Your task to perform on an android device: change the clock style Image 0: 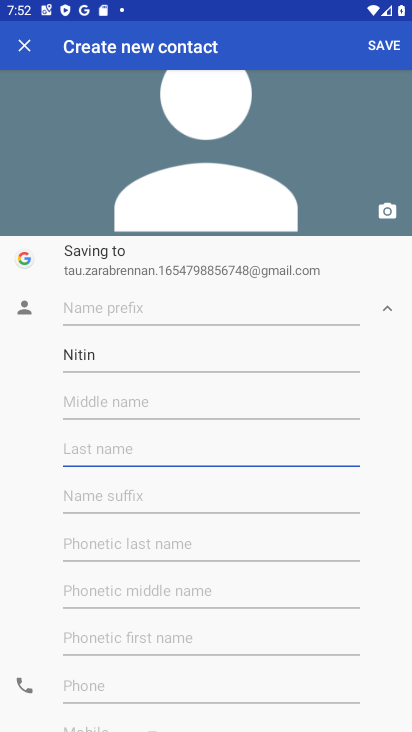
Step 0: press home button
Your task to perform on an android device: change the clock style Image 1: 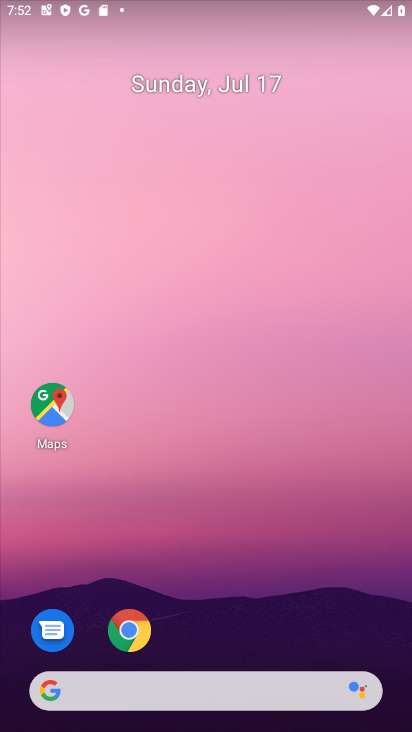
Step 1: drag from (189, 612) to (178, 10)
Your task to perform on an android device: change the clock style Image 2: 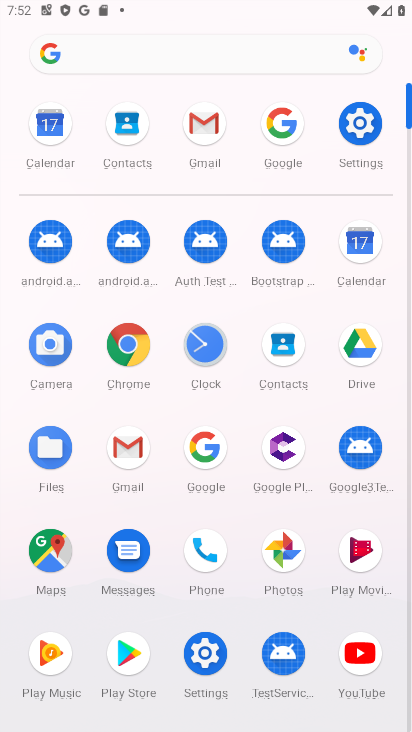
Step 2: click (197, 338)
Your task to perform on an android device: change the clock style Image 3: 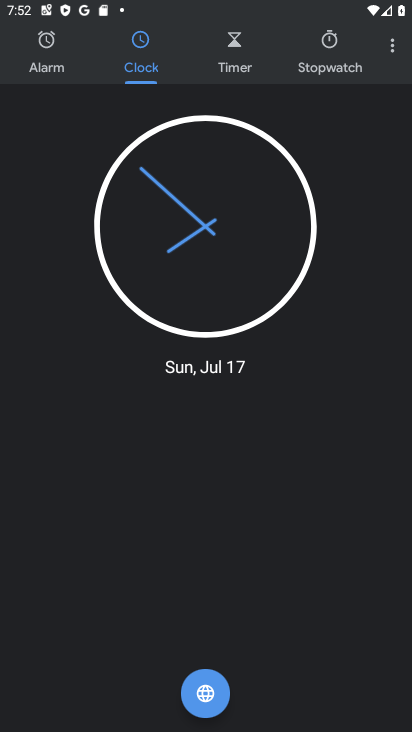
Step 3: click (394, 43)
Your task to perform on an android device: change the clock style Image 4: 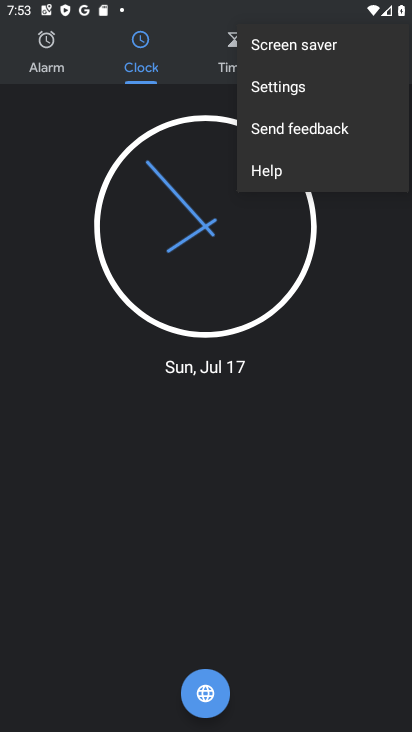
Step 4: click (300, 83)
Your task to perform on an android device: change the clock style Image 5: 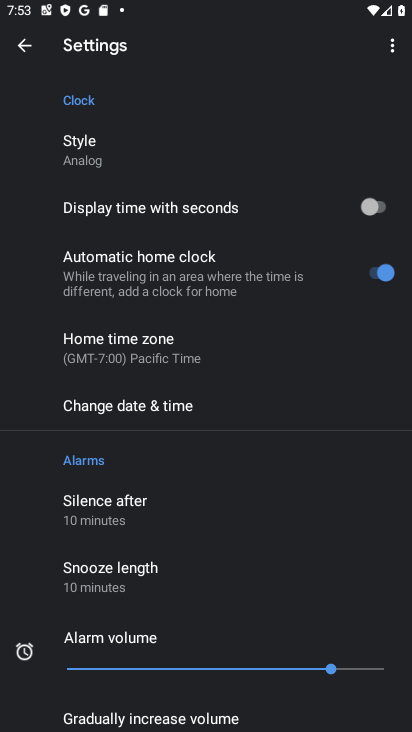
Step 5: click (106, 163)
Your task to perform on an android device: change the clock style Image 6: 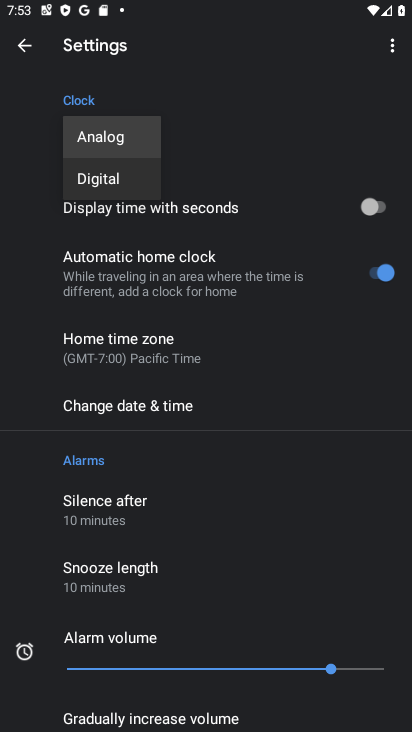
Step 6: click (97, 180)
Your task to perform on an android device: change the clock style Image 7: 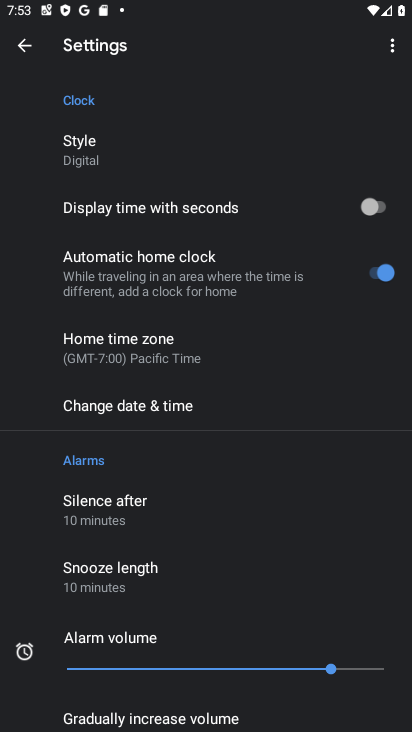
Step 7: task complete